Your task to perform on an android device: Open Google Maps and go to "Timeline" Image 0: 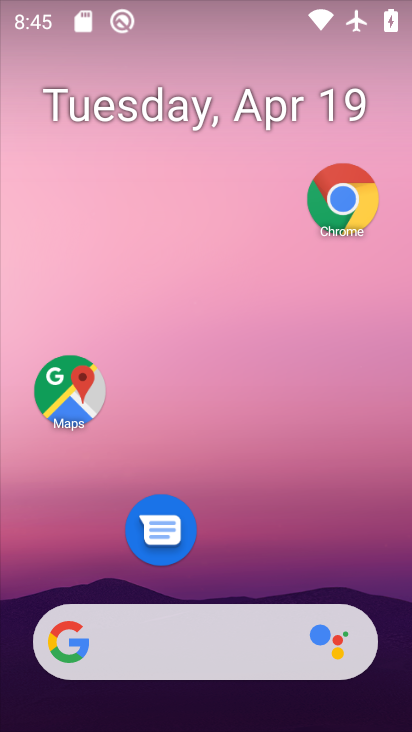
Step 0: drag from (207, 600) to (279, 224)
Your task to perform on an android device: Open Google Maps and go to "Timeline" Image 1: 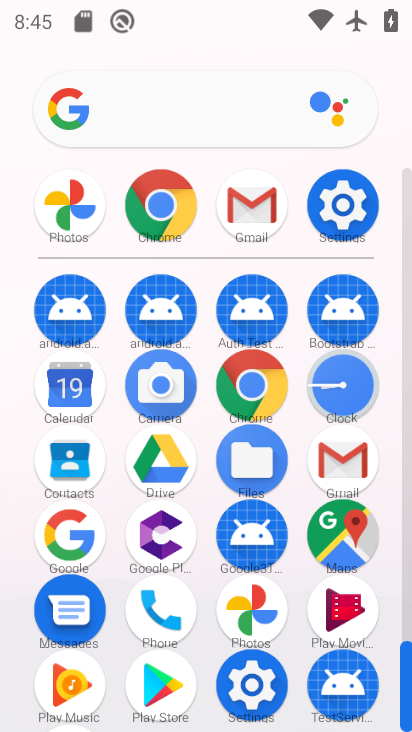
Step 1: click (352, 542)
Your task to perform on an android device: Open Google Maps and go to "Timeline" Image 2: 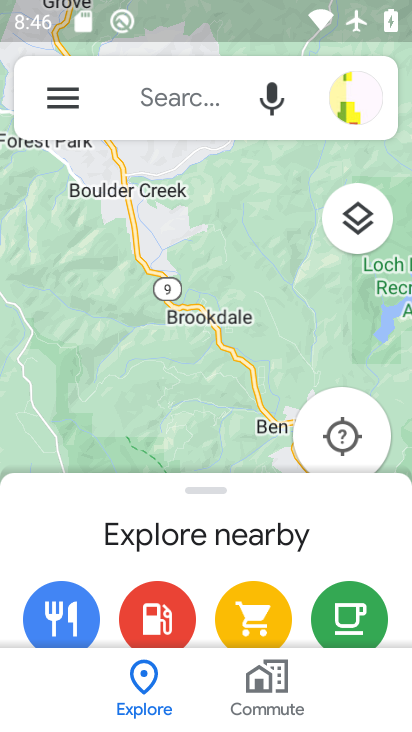
Step 2: drag from (182, 497) to (214, 146)
Your task to perform on an android device: Open Google Maps and go to "Timeline" Image 3: 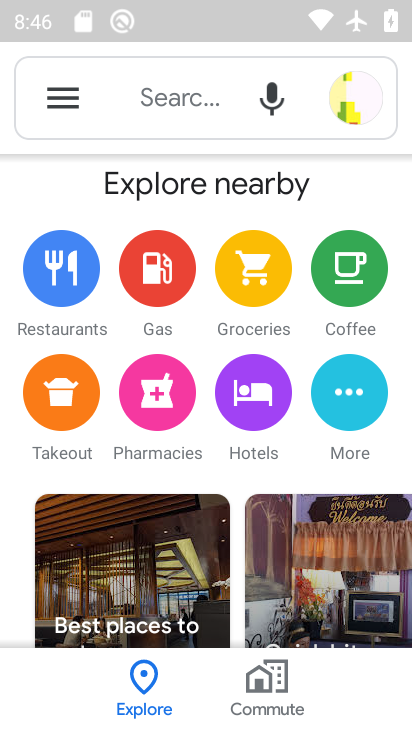
Step 3: click (64, 82)
Your task to perform on an android device: Open Google Maps and go to "Timeline" Image 4: 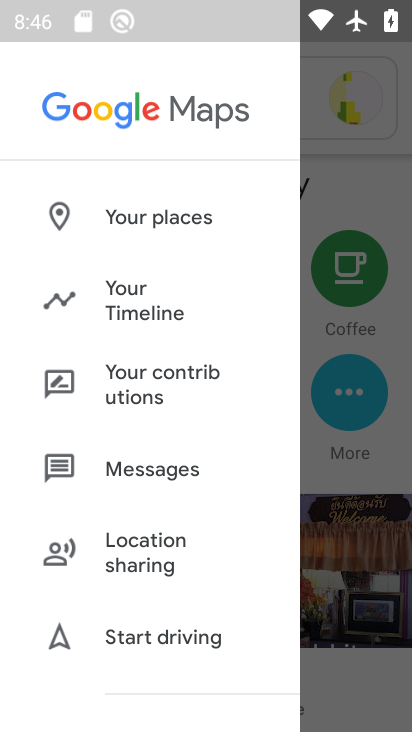
Step 4: click (108, 303)
Your task to perform on an android device: Open Google Maps and go to "Timeline" Image 5: 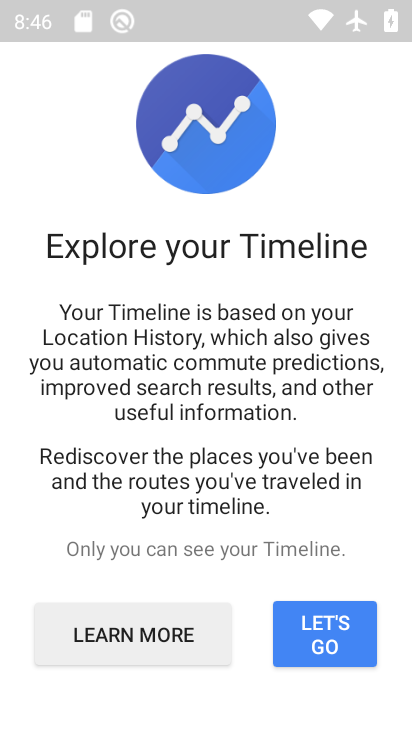
Step 5: drag from (240, 511) to (298, 203)
Your task to perform on an android device: Open Google Maps and go to "Timeline" Image 6: 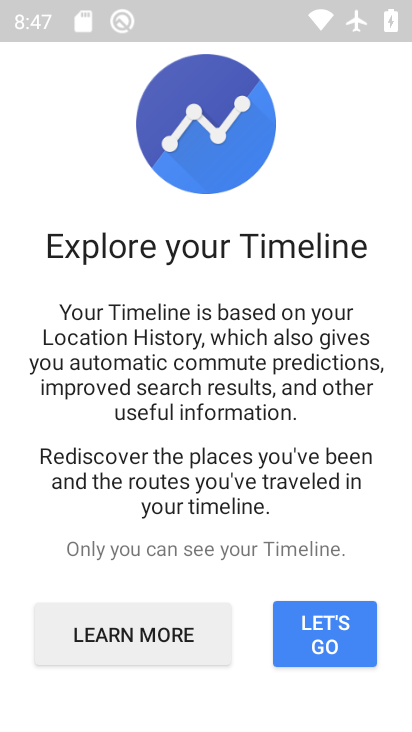
Step 6: drag from (256, 536) to (287, 355)
Your task to perform on an android device: Open Google Maps and go to "Timeline" Image 7: 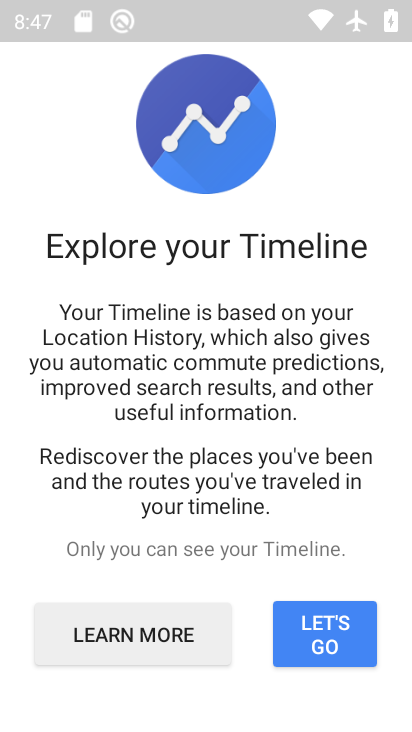
Step 7: drag from (249, 658) to (244, 355)
Your task to perform on an android device: Open Google Maps and go to "Timeline" Image 8: 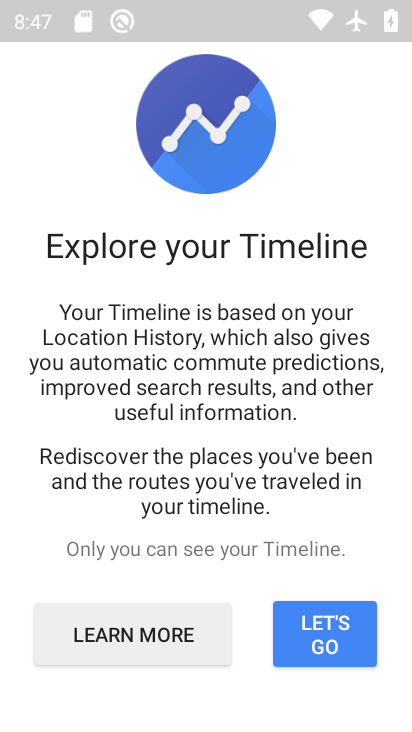
Step 8: click (331, 641)
Your task to perform on an android device: Open Google Maps and go to "Timeline" Image 9: 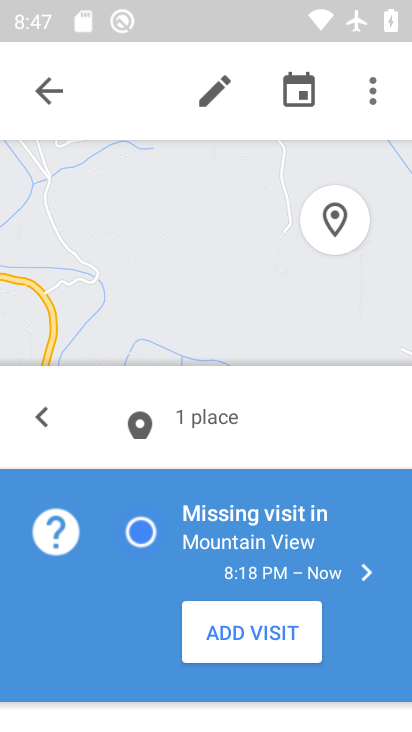
Step 9: task complete